Your task to perform on an android device: Open Google Image 0: 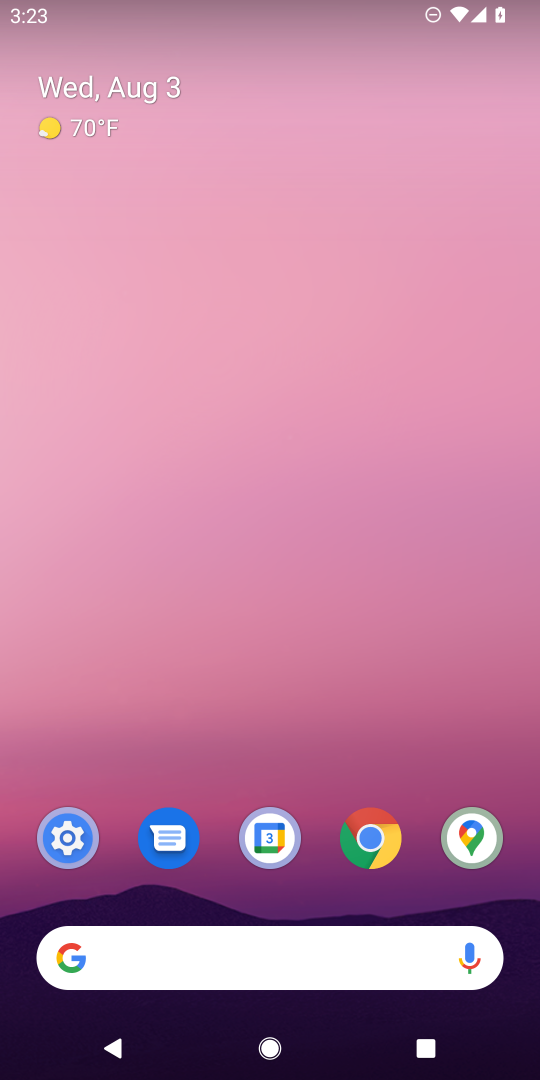
Step 0: drag from (258, 899) to (310, 367)
Your task to perform on an android device: Open Google Image 1: 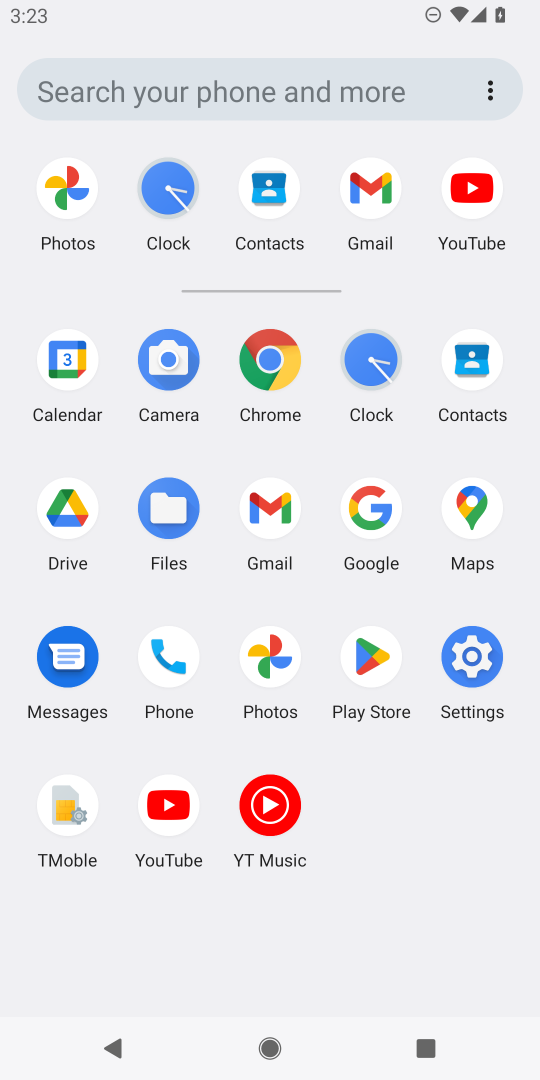
Step 1: click (356, 516)
Your task to perform on an android device: Open Google Image 2: 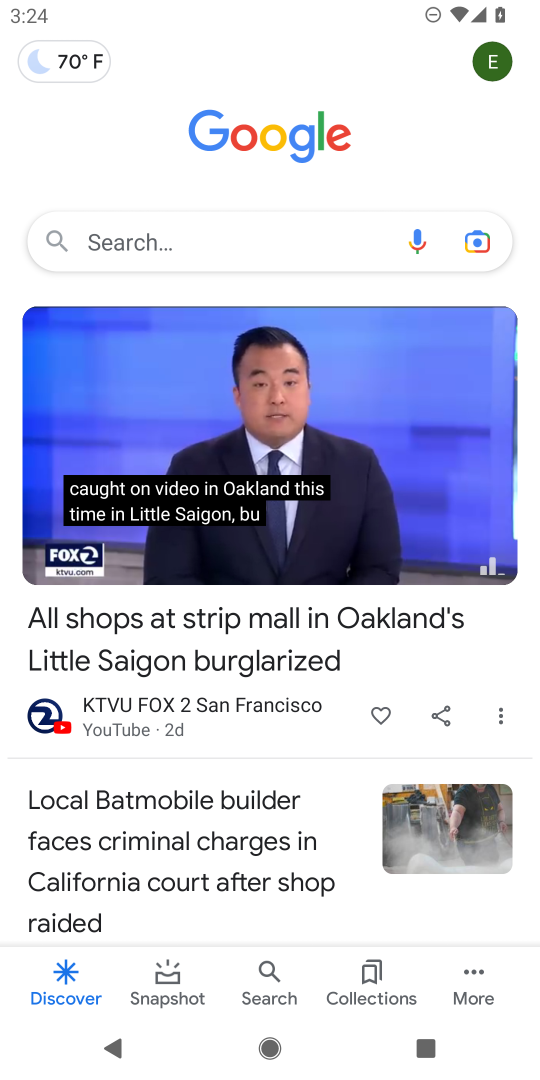
Step 2: task complete